Your task to perform on an android device: open chrome and create a bookmark for the current page Image 0: 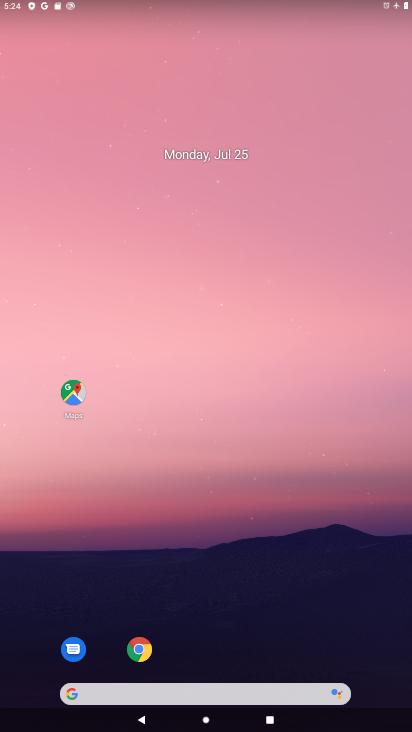
Step 0: drag from (250, 607) to (226, 93)
Your task to perform on an android device: open chrome and create a bookmark for the current page Image 1: 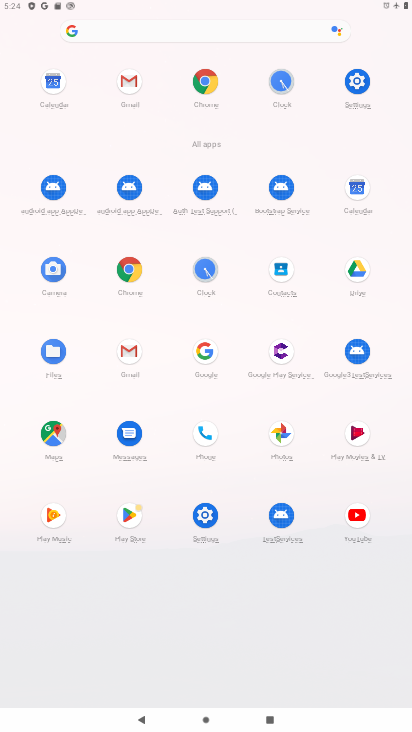
Step 1: click (130, 257)
Your task to perform on an android device: open chrome and create a bookmark for the current page Image 2: 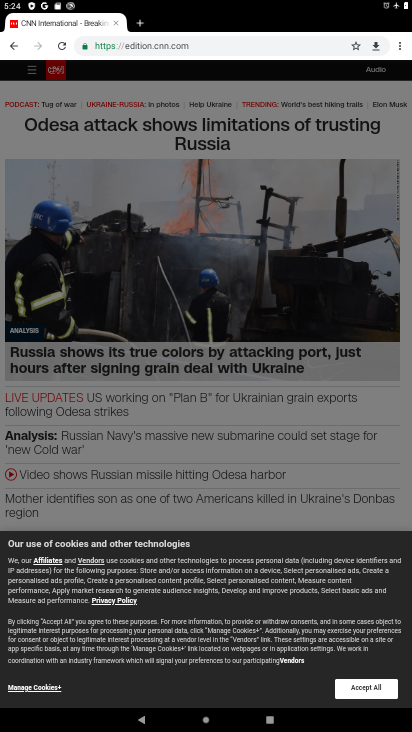
Step 2: drag from (400, 40) to (239, 69)
Your task to perform on an android device: open chrome and create a bookmark for the current page Image 3: 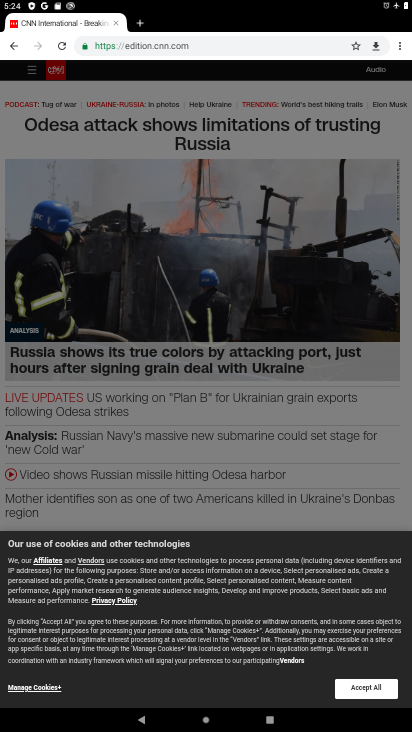
Step 3: click (251, 67)
Your task to perform on an android device: open chrome and create a bookmark for the current page Image 4: 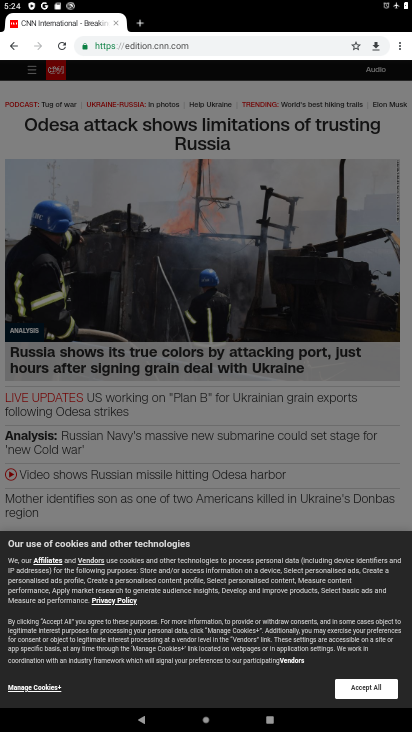
Step 4: click (353, 45)
Your task to perform on an android device: open chrome and create a bookmark for the current page Image 5: 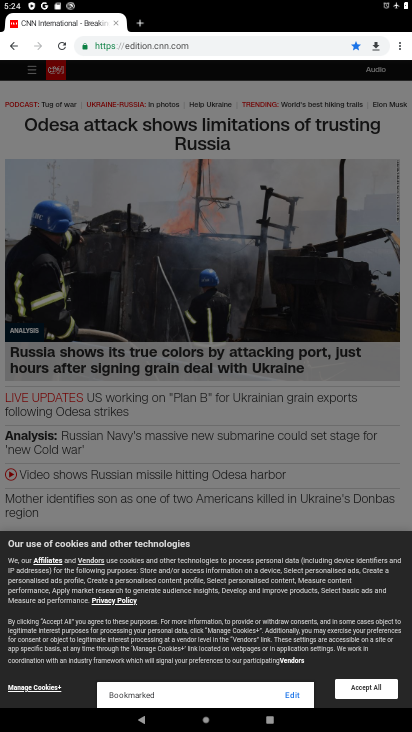
Step 5: task complete